Your task to perform on an android device: Open calendar and show me the third week of next month Image 0: 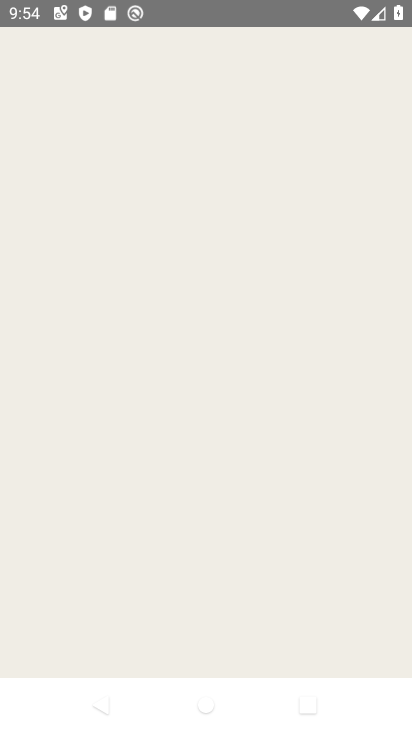
Step 0: press home button
Your task to perform on an android device: Open calendar and show me the third week of next month Image 1: 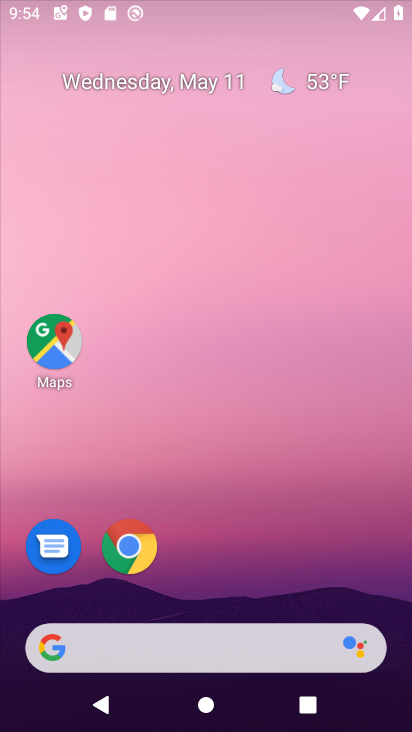
Step 1: drag from (412, 634) to (282, 109)
Your task to perform on an android device: Open calendar and show me the third week of next month Image 2: 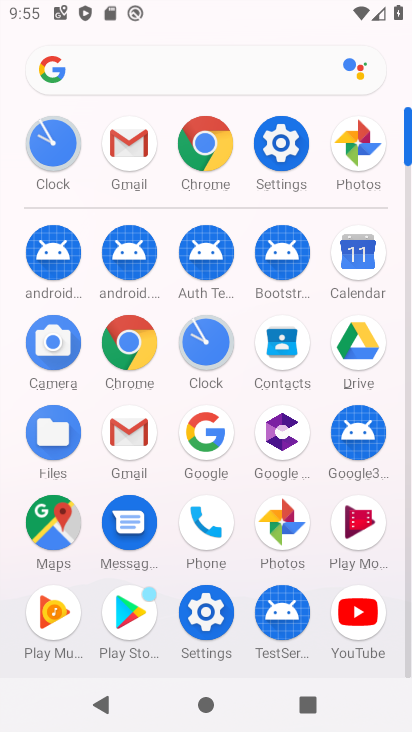
Step 2: click (351, 258)
Your task to perform on an android device: Open calendar and show me the third week of next month Image 3: 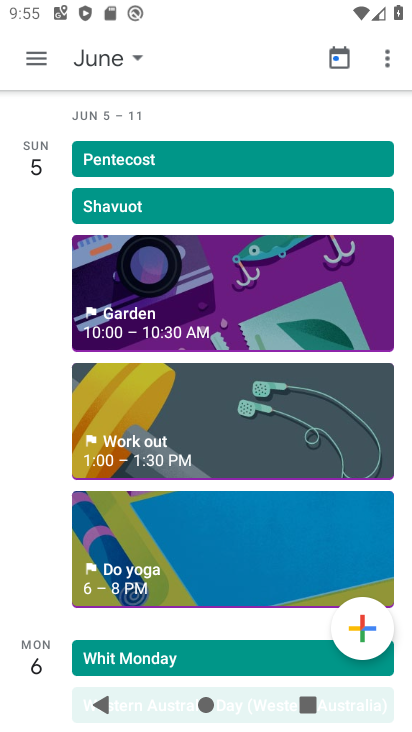
Step 3: press home button
Your task to perform on an android device: Open calendar and show me the third week of next month Image 4: 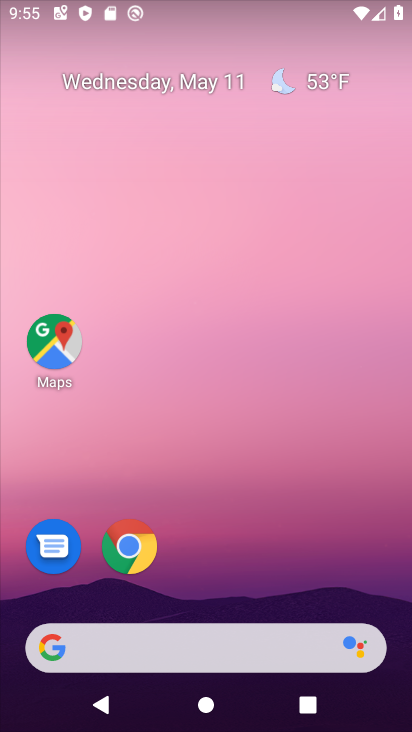
Step 4: drag from (362, 582) to (330, 22)
Your task to perform on an android device: Open calendar and show me the third week of next month Image 5: 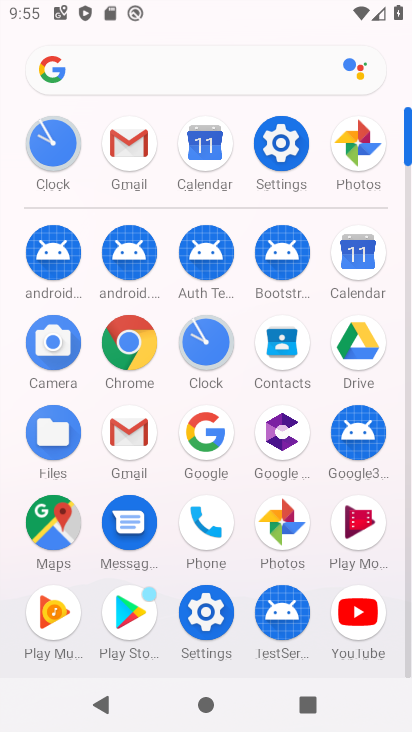
Step 5: click (359, 271)
Your task to perform on an android device: Open calendar and show me the third week of next month Image 6: 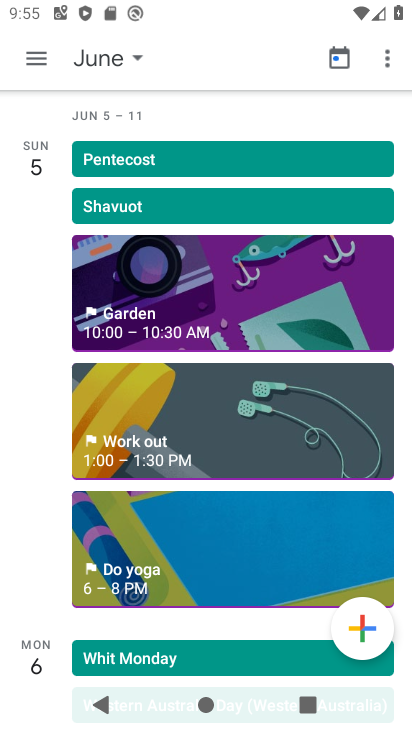
Step 6: click (126, 67)
Your task to perform on an android device: Open calendar and show me the third week of next month Image 7: 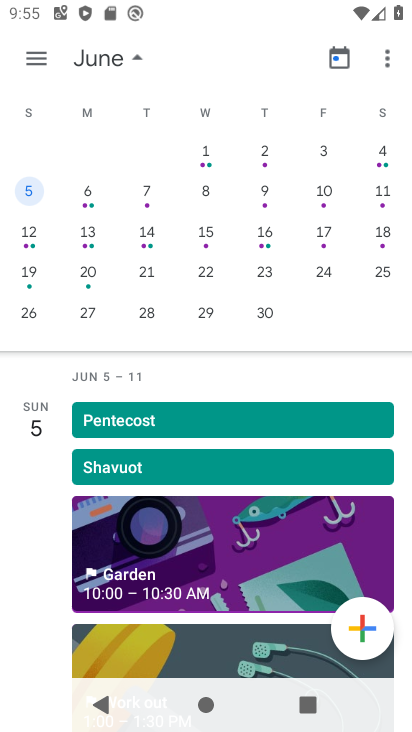
Step 7: drag from (346, 221) to (2, 221)
Your task to perform on an android device: Open calendar and show me the third week of next month Image 8: 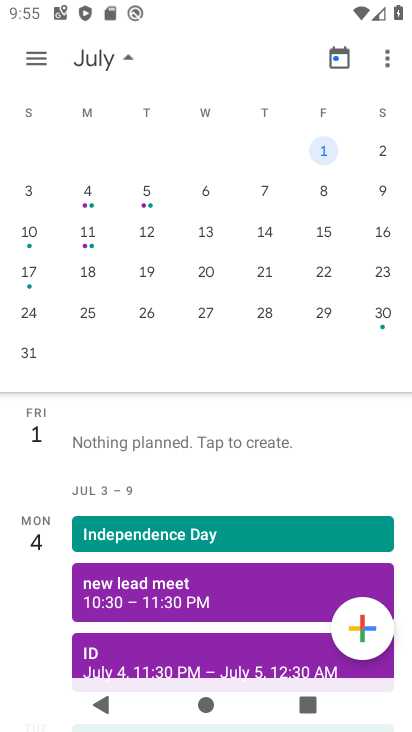
Step 8: click (32, 280)
Your task to perform on an android device: Open calendar and show me the third week of next month Image 9: 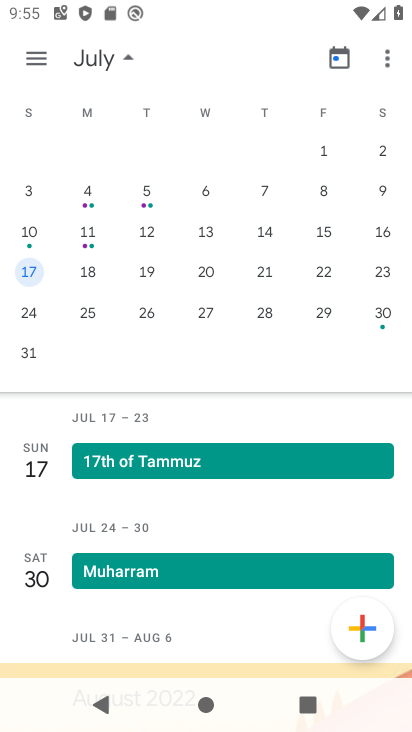
Step 9: task complete